Your task to perform on an android device: change the clock display to analog Image 0: 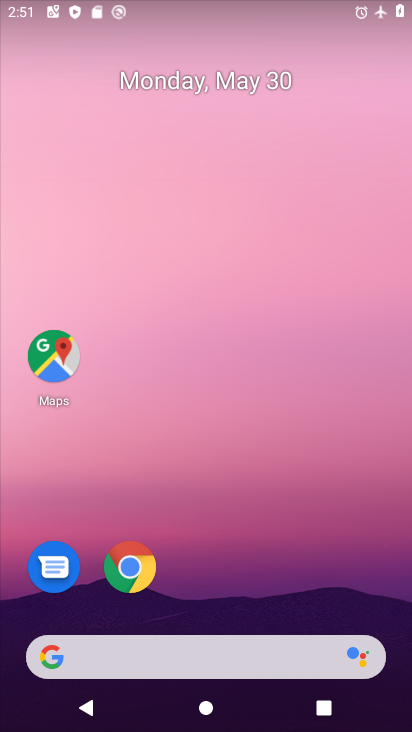
Step 0: drag from (225, 609) to (294, 1)
Your task to perform on an android device: change the clock display to analog Image 1: 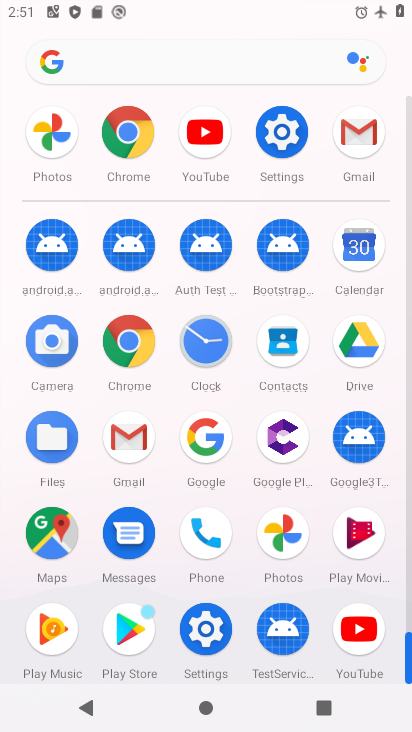
Step 1: click (221, 346)
Your task to perform on an android device: change the clock display to analog Image 2: 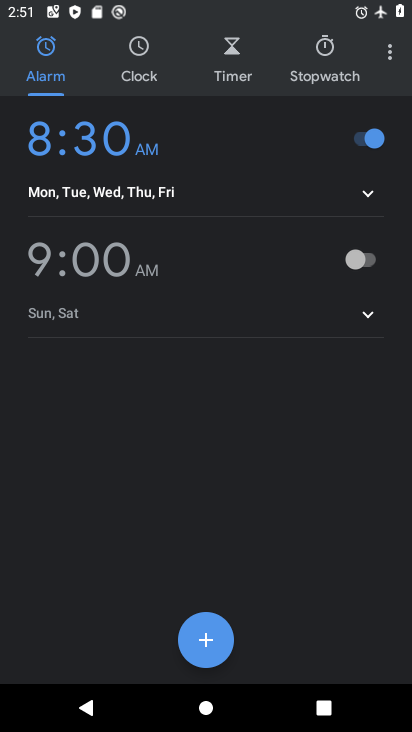
Step 2: click (391, 58)
Your task to perform on an android device: change the clock display to analog Image 3: 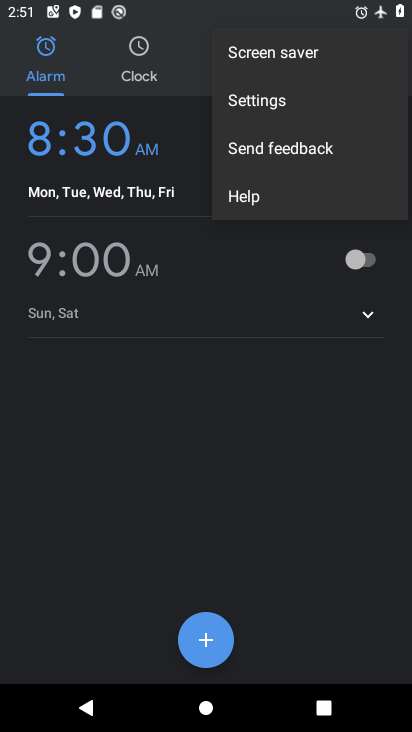
Step 3: click (251, 102)
Your task to perform on an android device: change the clock display to analog Image 4: 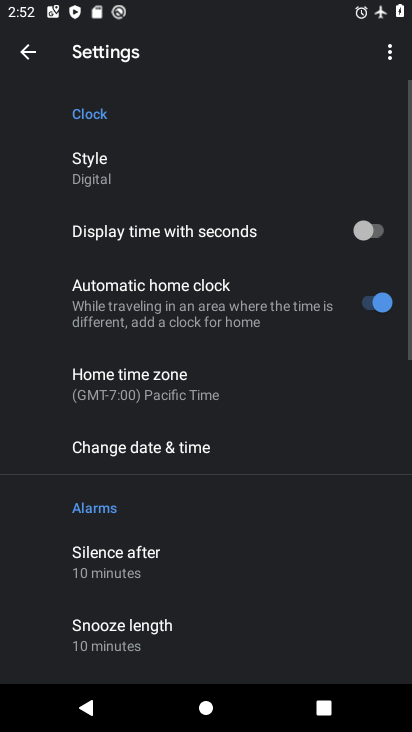
Step 4: click (139, 187)
Your task to perform on an android device: change the clock display to analog Image 5: 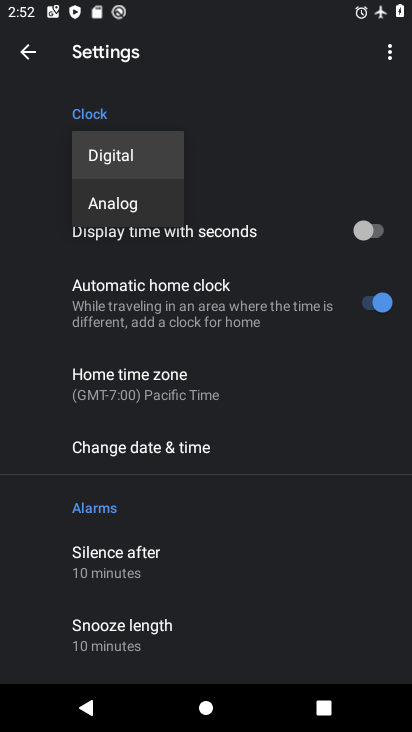
Step 5: click (133, 208)
Your task to perform on an android device: change the clock display to analog Image 6: 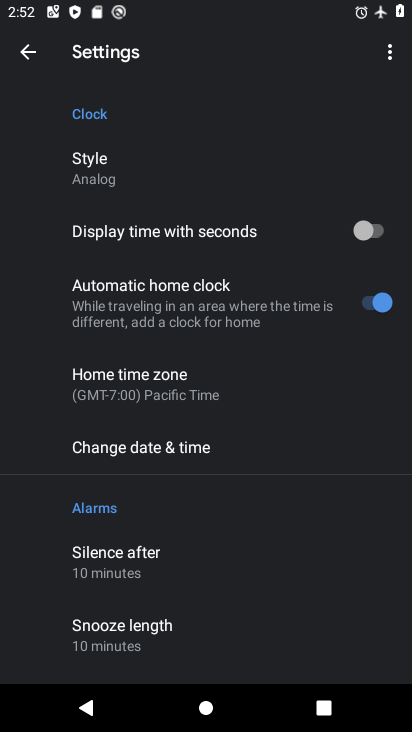
Step 6: task complete